Your task to perform on an android device: set the timer Image 0: 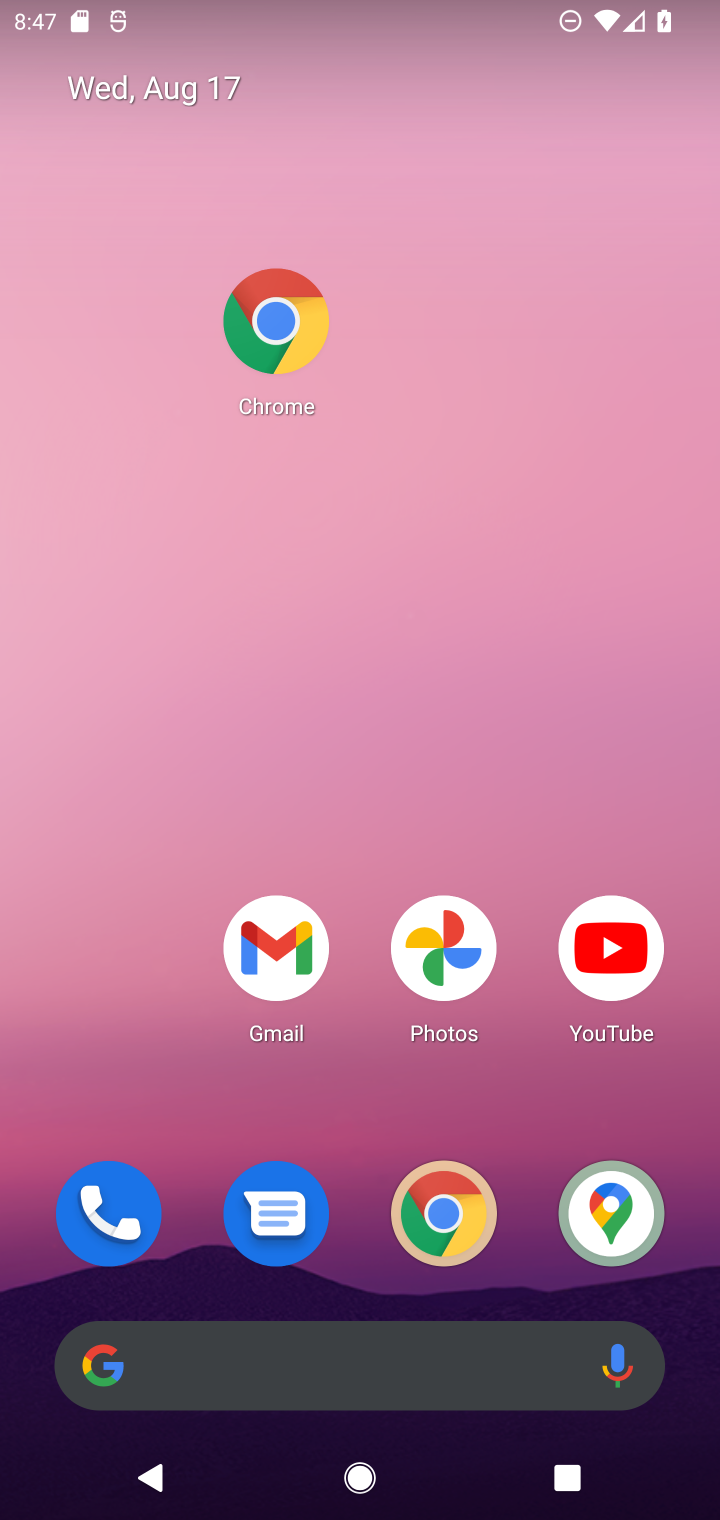
Step 0: drag from (361, 1277) to (389, 114)
Your task to perform on an android device: set the timer Image 1: 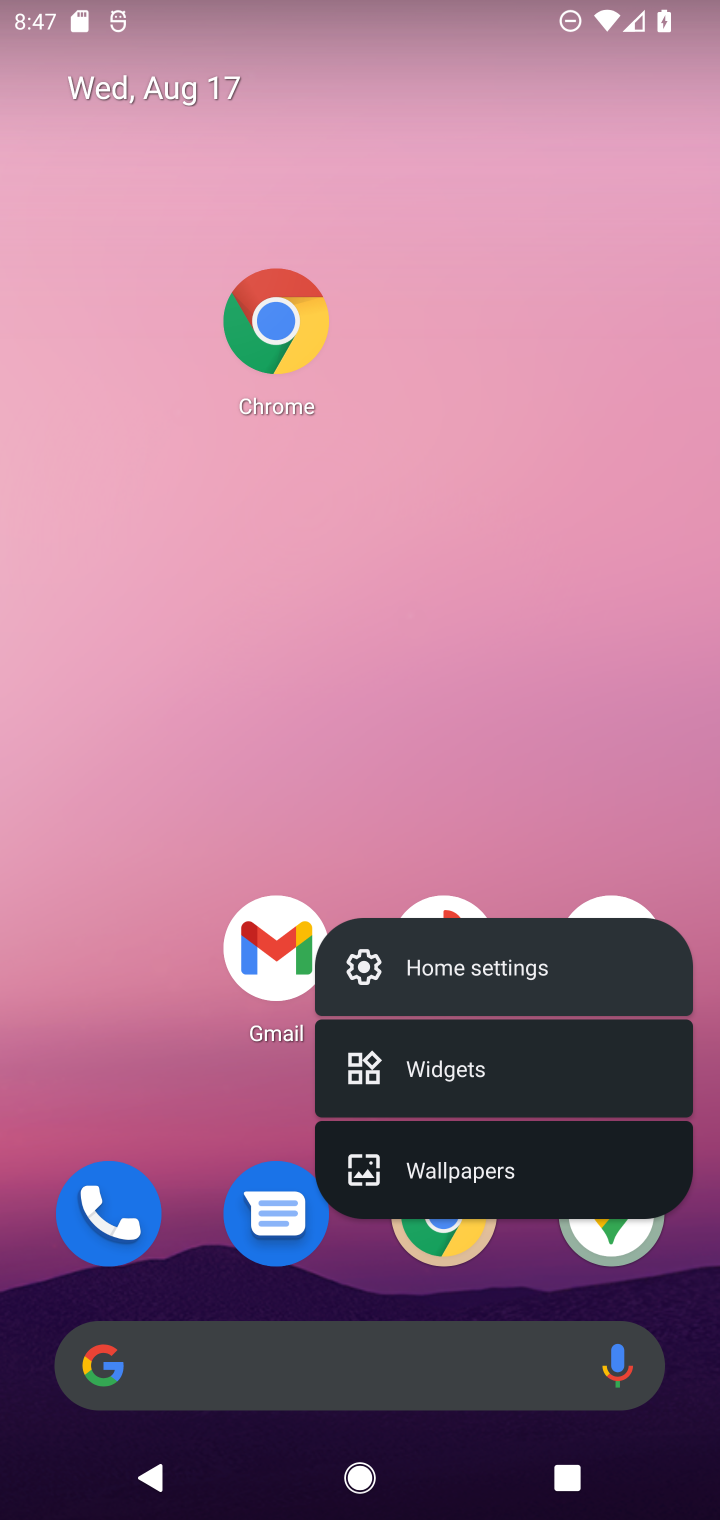
Step 1: click (415, 463)
Your task to perform on an android device: set the timer Image 2: 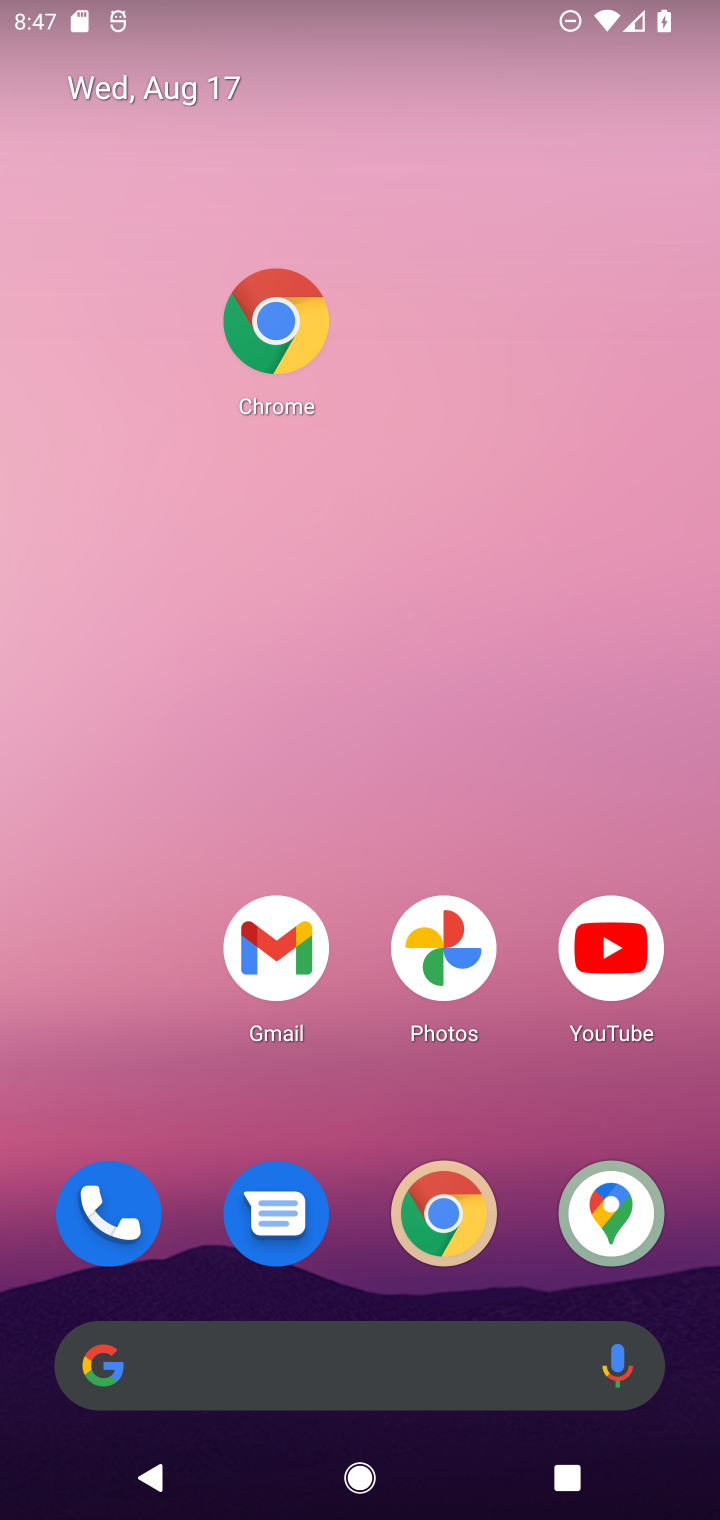
Step 2: drag from (359, 1310) to (383, 206)
Your task to perform on an android device: set the timer Image 3: 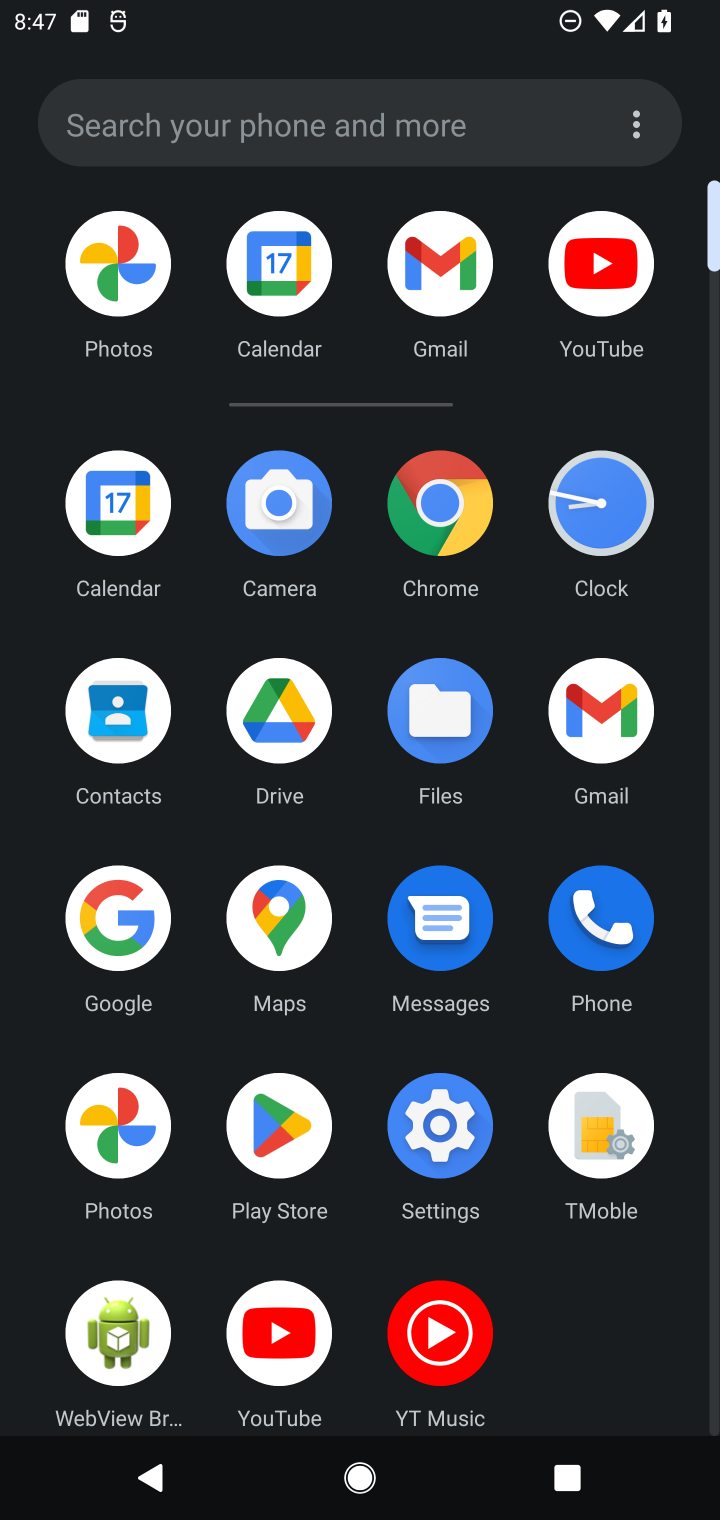
Step 3: click (594, 531)
Your task to perform on an android device: set the timer Image 4: 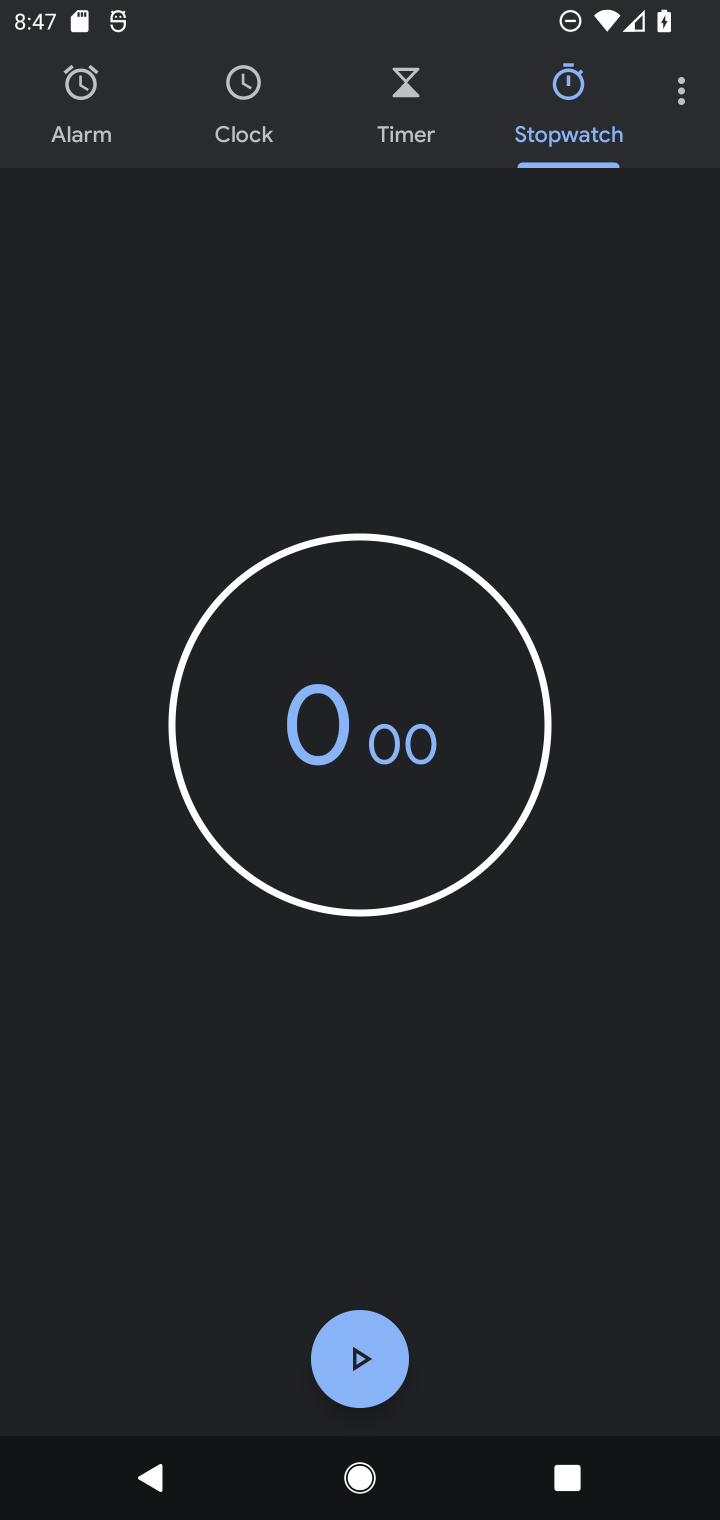
Step 4: click (436, 138)
Your task to perform on an android device: set the timer Image 5: 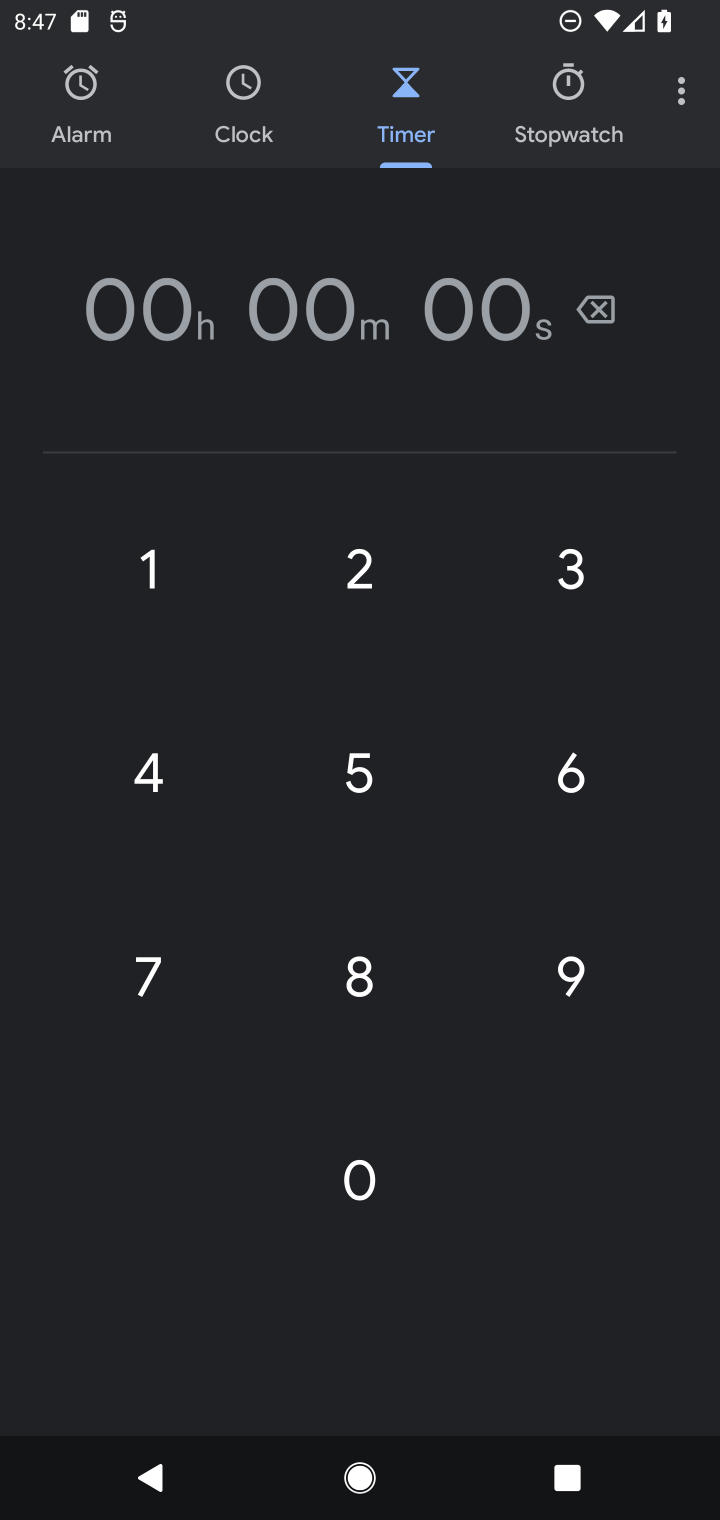
Step 5: task complete